Your task to perform on an android device: What's the weather going to be tomorrow? Image 0: 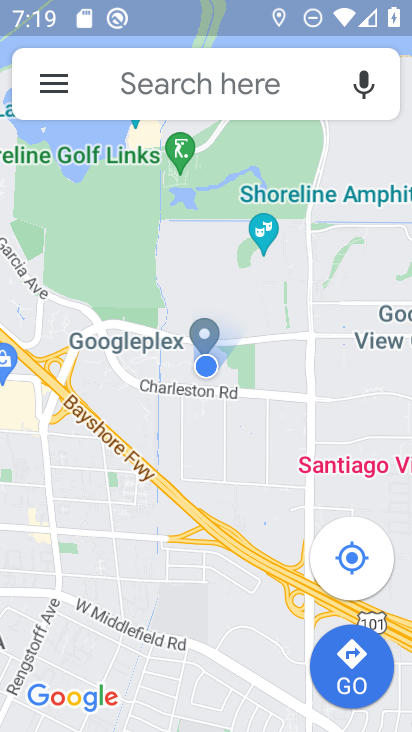
Step 0: press home button
Your task to perform on an android device: What's the weather going to be tomorrow? Image 1: 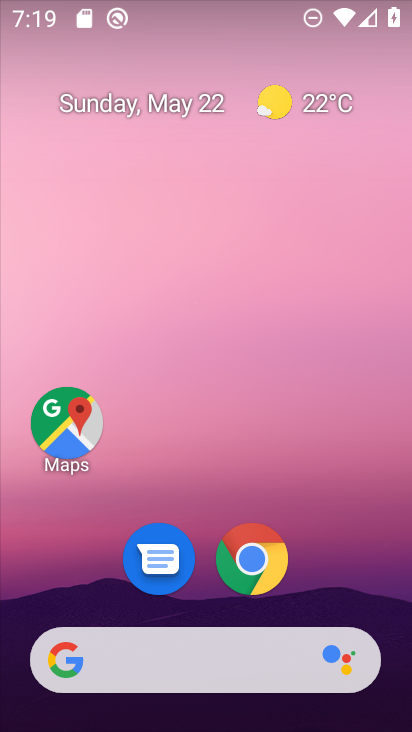
Step 1: drag from (264, 690) to (235, 250)
Your task to perform on an android device: What's the weather going to be tomorrow? Image 2: 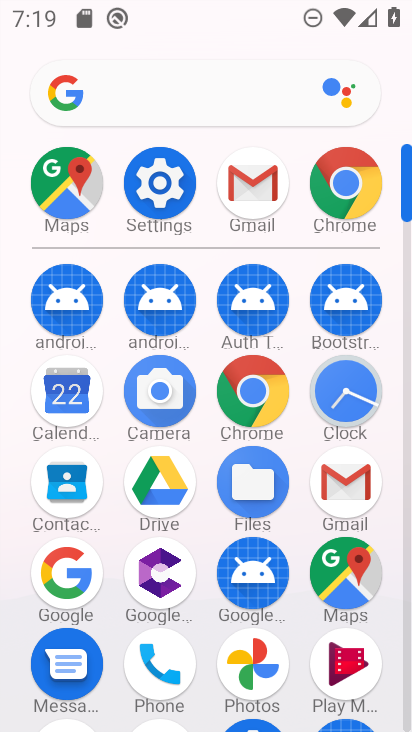
Step 2: click (142, 106)
Your task to perform on an android device: What's the weather going to be tomorrow? Image 3: 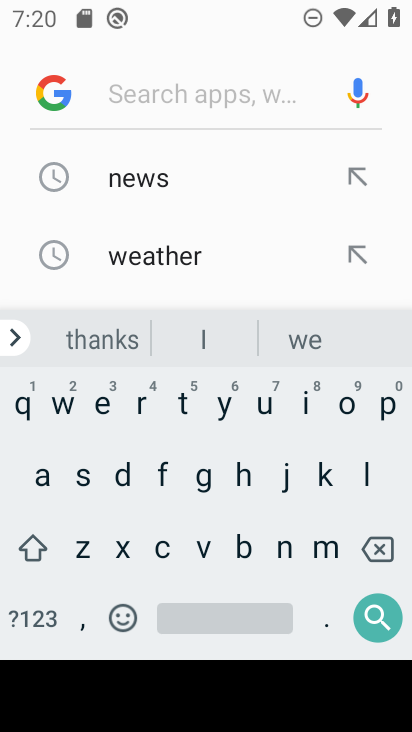
Step 3: click (198, 254)
Your task to perform on an android device: What's the weather going to be tomorrow? Image 4: 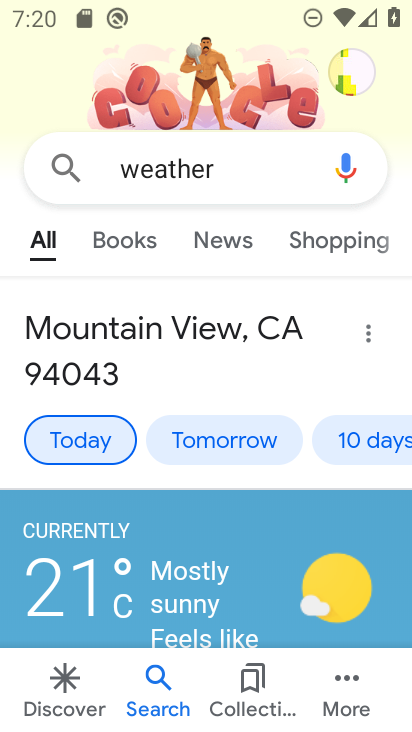
Step 4: click (238, 442)
Your task to perform on an android device: What's the weather going to be tomorrow? Image 5: 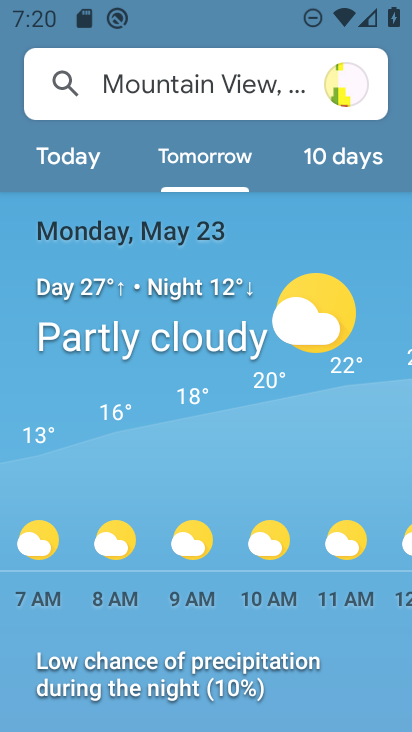
Step 5: task complete